Your task to perform on an android device: Set the phone to "Do not disturb". Image 0: 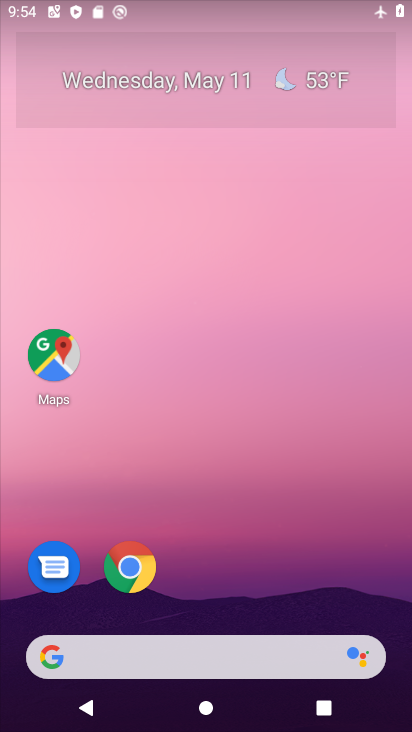
Step 0: drag from (271, 719) to (222, 92)
Your task to perform on an android device: Set the phone to "Do not disturb". Image 1: 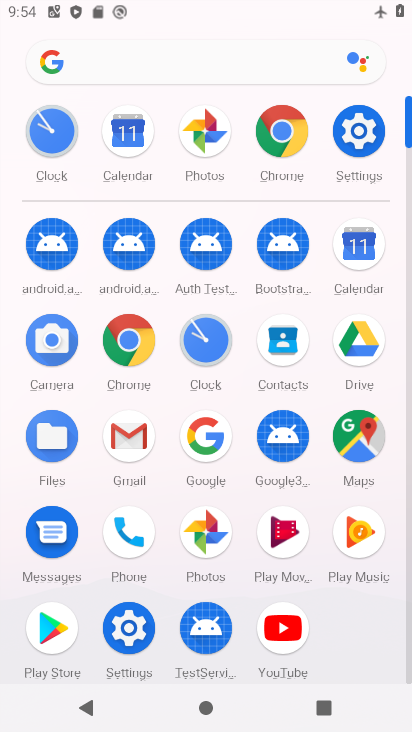
Step 1: click (354, 126)
Your task to perform on an android device: Set the phone to "Do not disturb". Image 2: 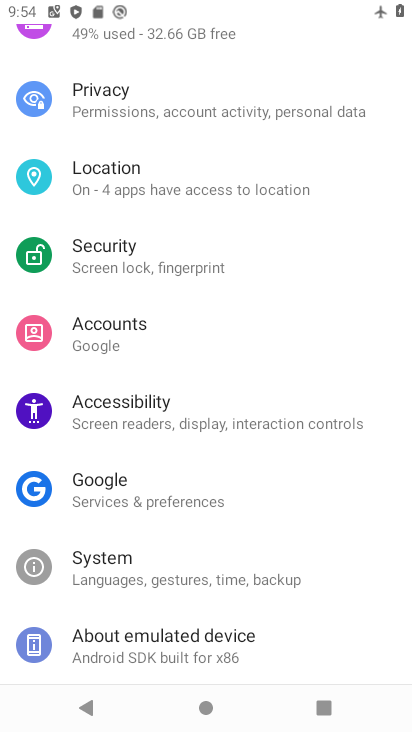
Step 2: drag from (261, 637) to (197, 178)
Your task to perform on an android device: Set the phone to "Do not disturb". Image 3: 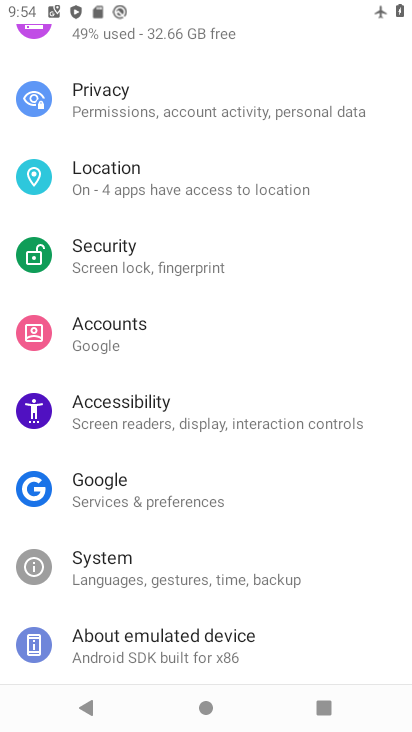
Step 3: drag from (328, 189) to (169, 693)
Your task to perform on an android device: Set the phone to "Do not disturb". Image 4: 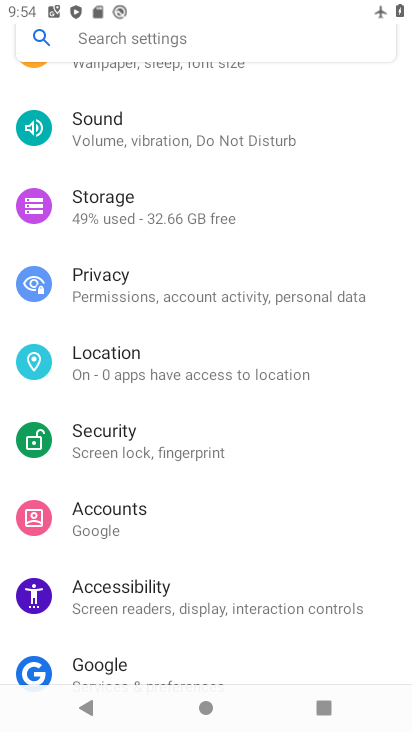
Step 4: click (256, 145)
Your task to perform on an android device: Set the phone to "Do not disturb". Image 5: 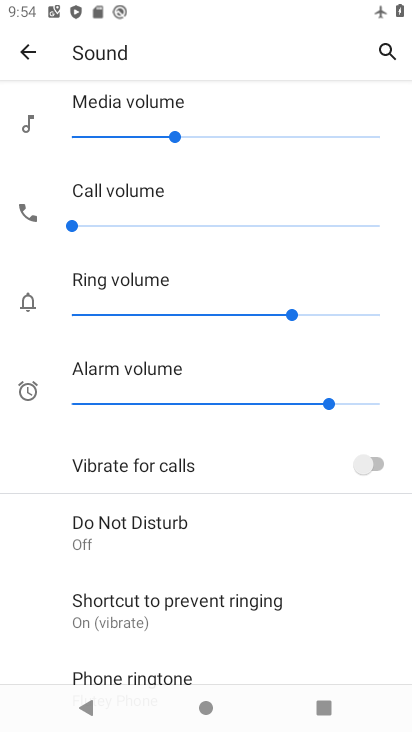
Step 5: click (131, 549)
Your task to perform on an android device: Set the phone to "Do not disturb". Image 6: 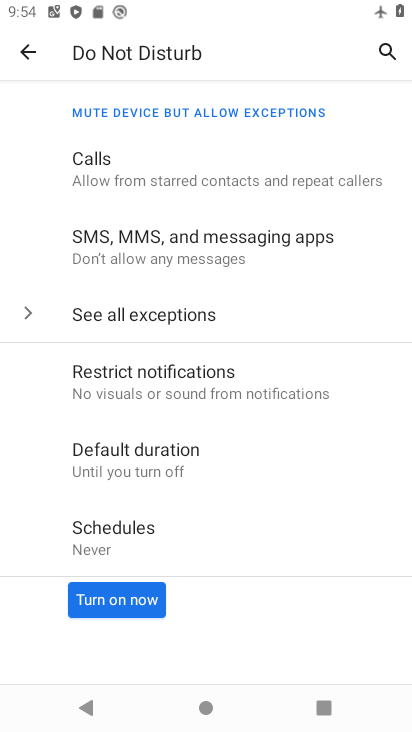
Step 6: click (111, 599)
Your task to perform on an android device: Set the phone to "Do not disturb". Image 7: 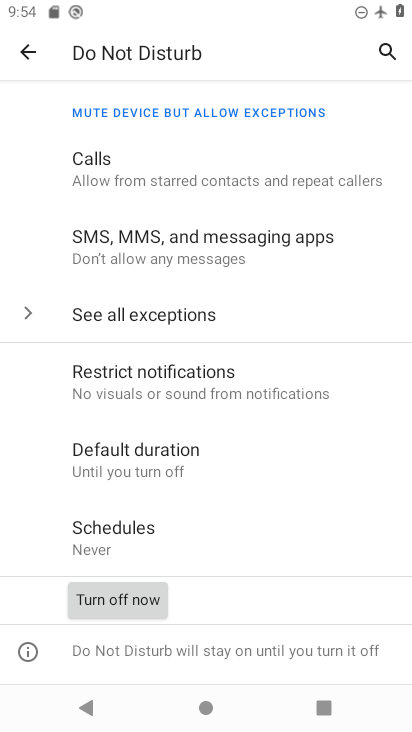
Step 7: task complete